Your task to perform on an android device: turn on the 24-hour format for clock Image 0: 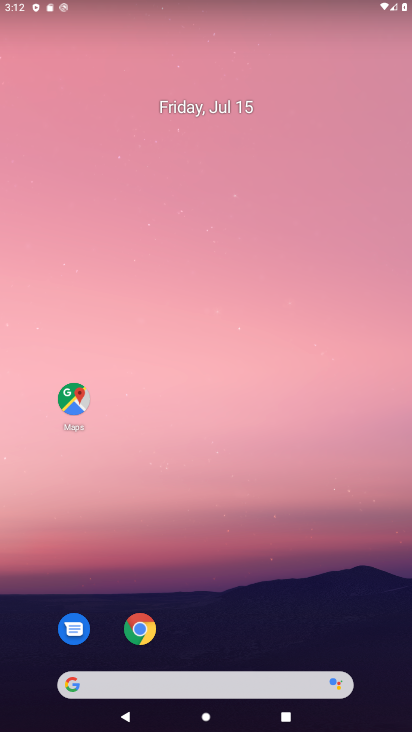
Step 0: drag from (383, 722) to (275, 172)
Your task to perform on an android device: turn on the 24-hour format for clock Image 1: 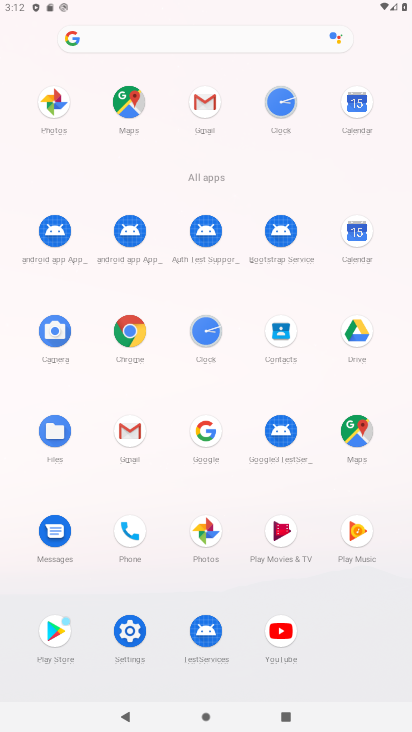
Step 1: click (206, 335)
Your task to perform on an android device: turn on the 24-hour format for clock Image 2: 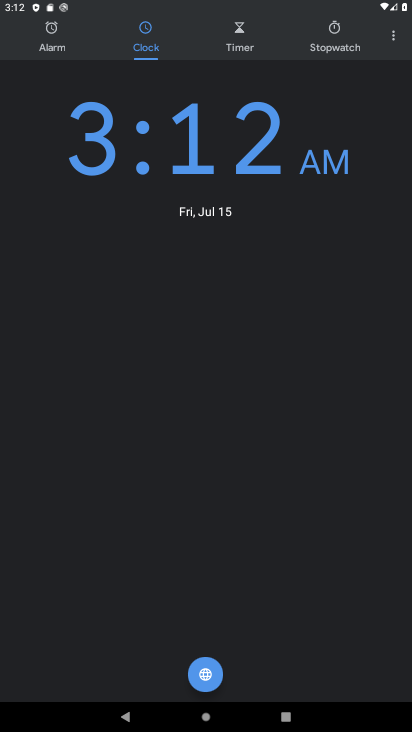
Step 2: click (396, 41)
Your task to perform on an android device: turn on the 24-hour format for clock Image 3: 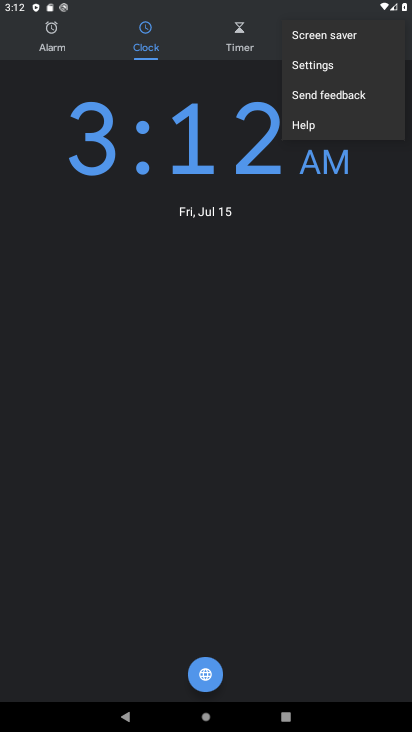
Step 3: click (323, 69)
Your task to perform on an android device: turn on the 24-hour format for clock Image 4: 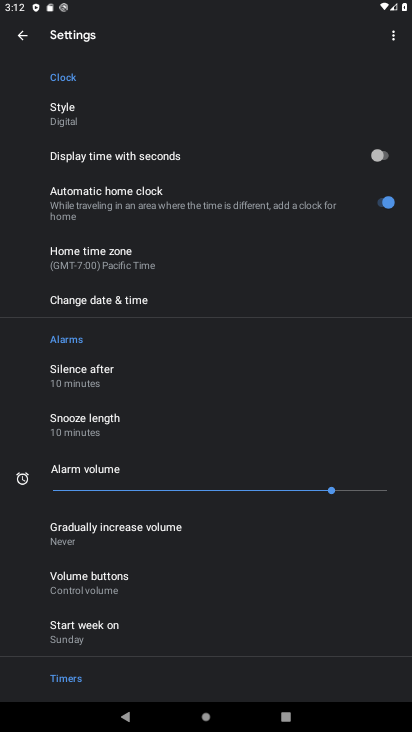
Step 4: click (320, 62)
Your task to perform on an android device: turn on the 24-hour format for clock Image 5: 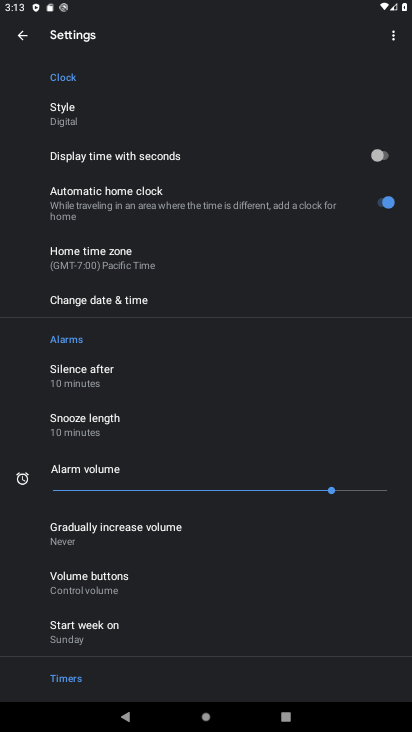
Step 5: click (109, 295)
Your task to perform on an android device: turn on the 24-hour format for clock Image 6: 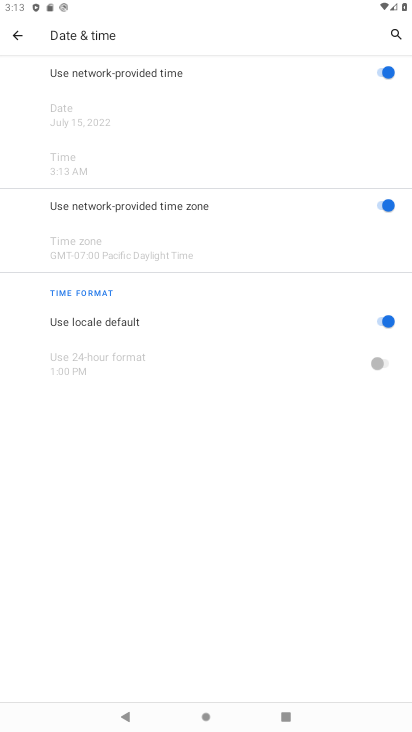
Step 6: click (385, 324)
Your task to perform on an android device: turn on the 24-hour format for clock Image 7: 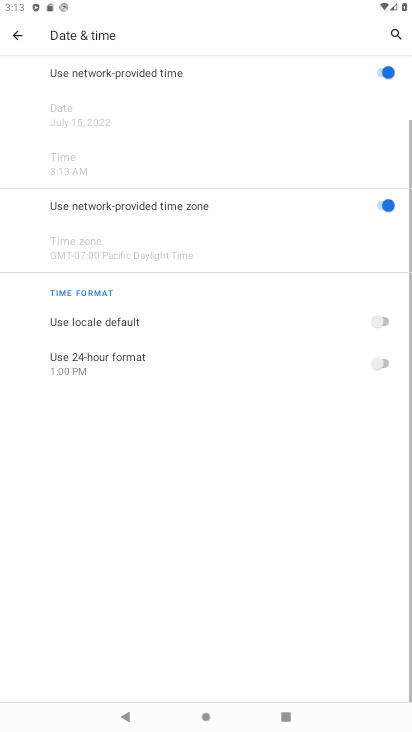
Step 7: click (380, 366)
Your task to perform on an android device: turn on the 24-hour format for clock Image 8: 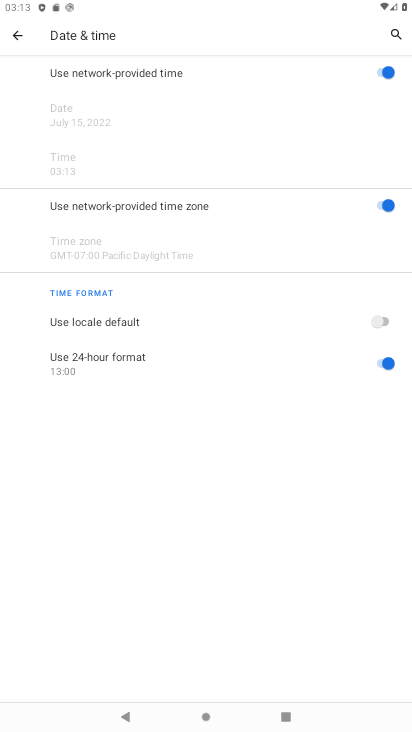
Step 8: task complete